Your task to perform on an android device: open app "DoorDash - Dasher" Image 0: 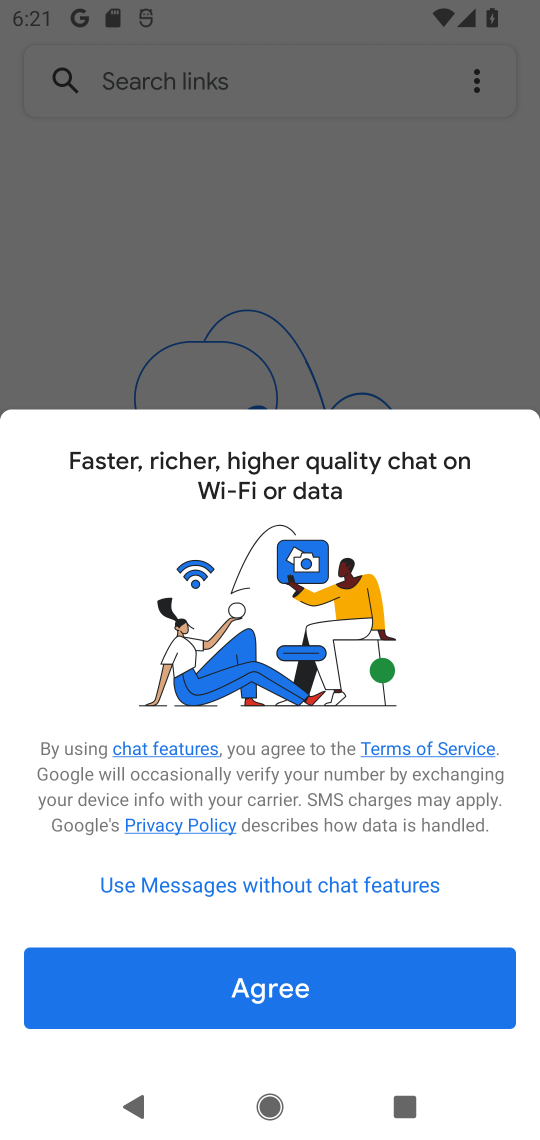
Step 0: press home button
Your task to perform on an android device: open app "DoorDash - Dasher" Image 1: 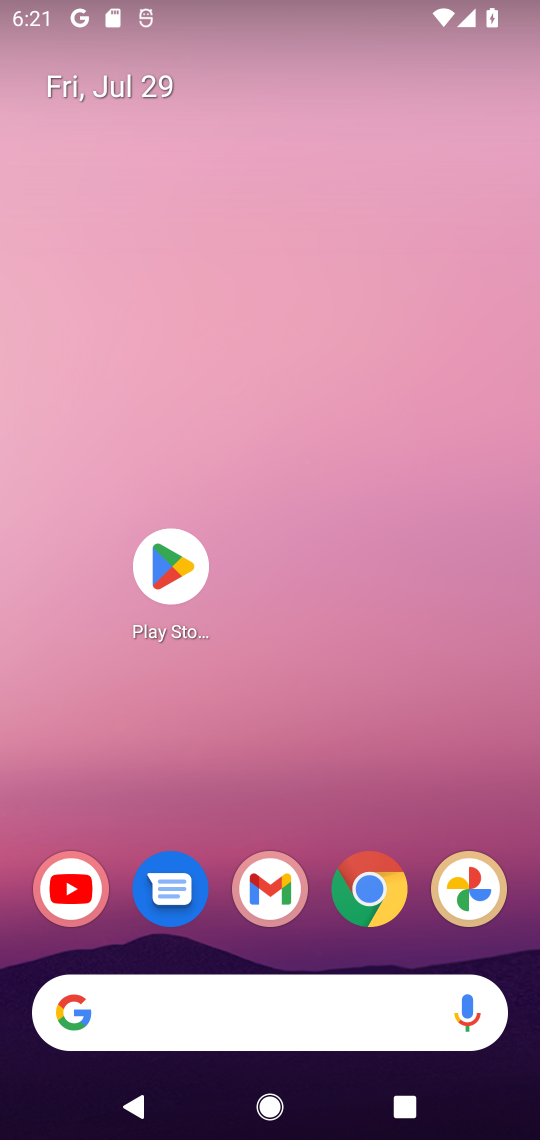
Step 1: click (175, 564)
Your task to perform on an android device: open app "DoorDash - Dasher" Image 2: 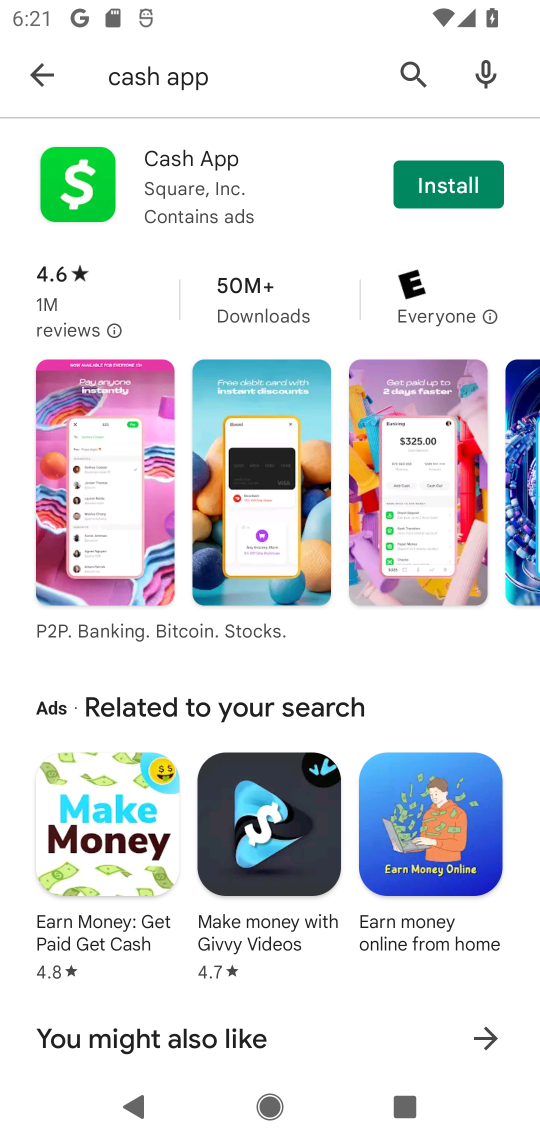
Step 2: click (407, 68)
Your task to perform on an android device: open app "DoorDash - Dasher" Image 3: 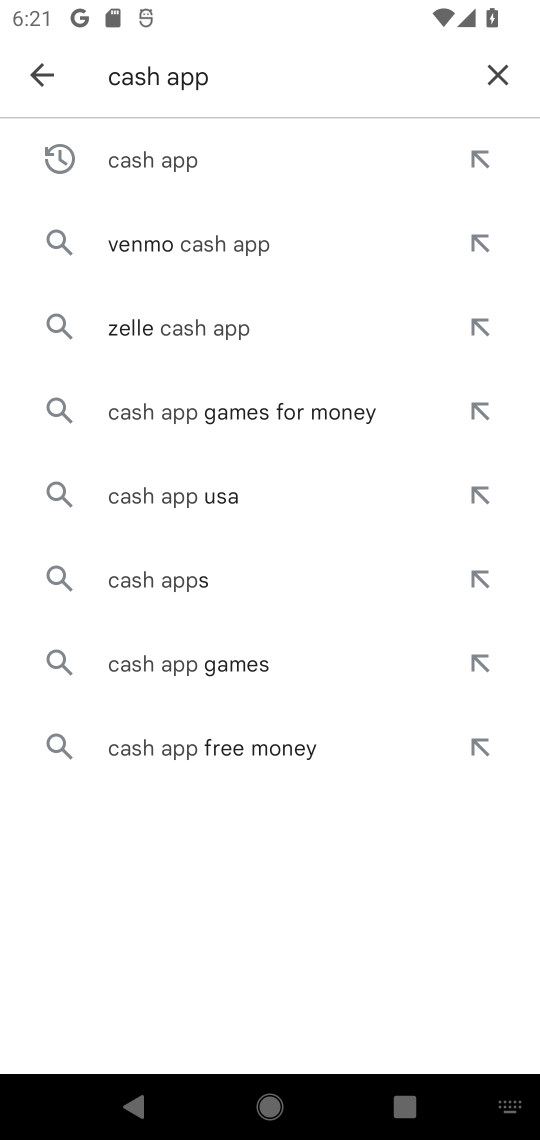
Step 3: click (505, 78)
Your task to perform on an android device: open app "DoorDash - Dasher" Image 4: 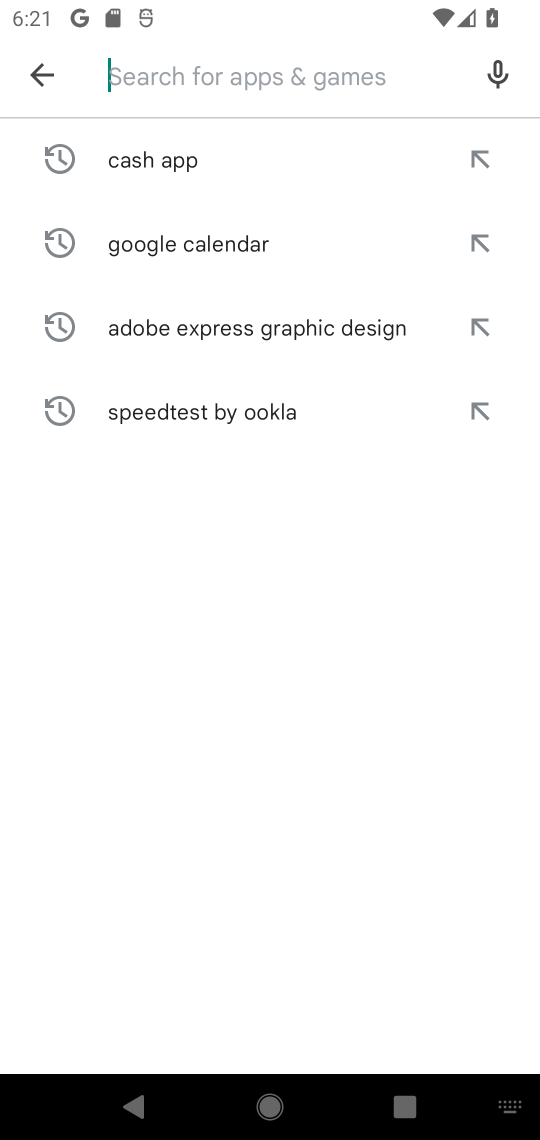
Step 4: type "DoorDash - Dasher"
Your task to perform on an android device: open app "DoorDash - Dasher" Image 5: 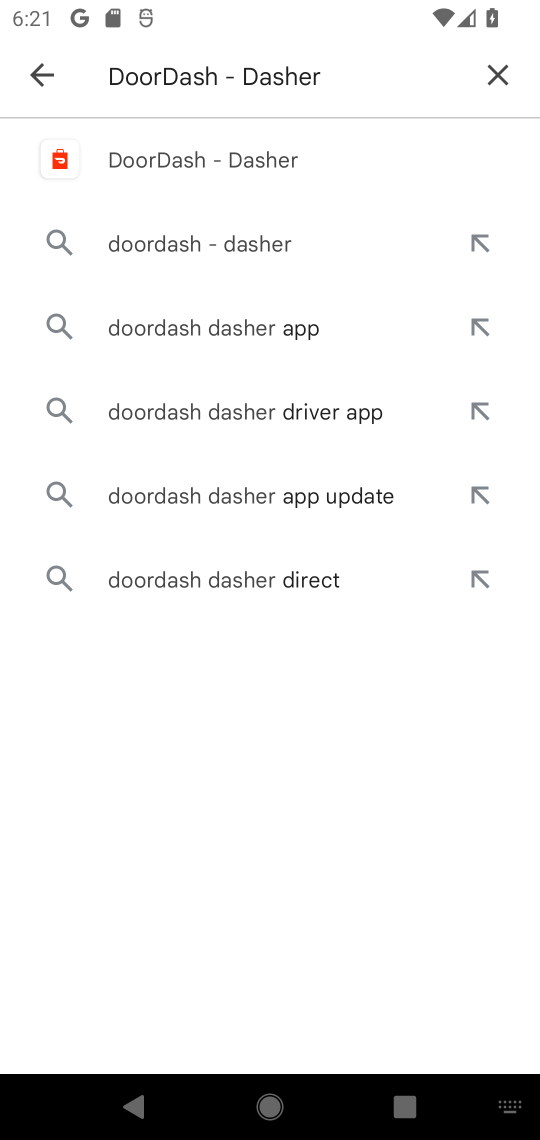
Step 5: click (225, 153)
Your task to perform on an android device: open app "DoorDash - Dasher" Image 6: 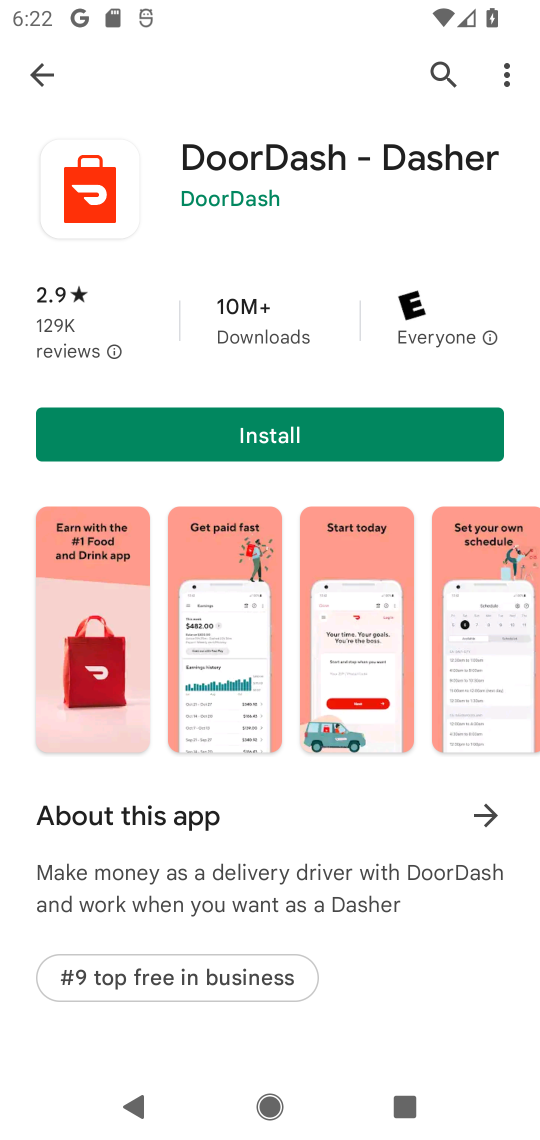
Step 6: task complete